Your task to perform on an android device: Go to privacy settings Image 0: 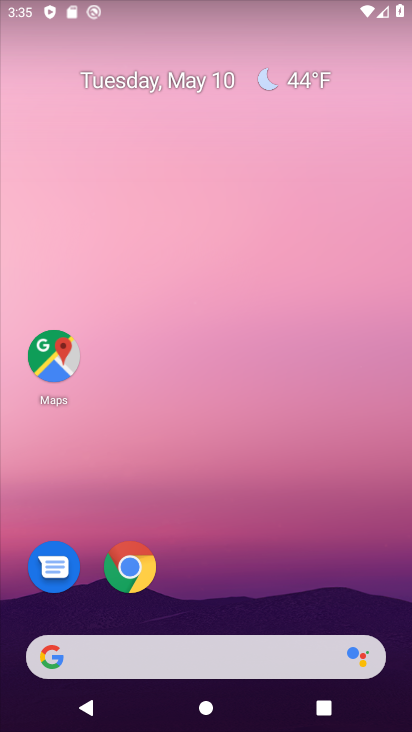
Step 0: drag from (248, 601) to (255, 16)
Your task to perform on an android device: Go to privacy settings Image 1: 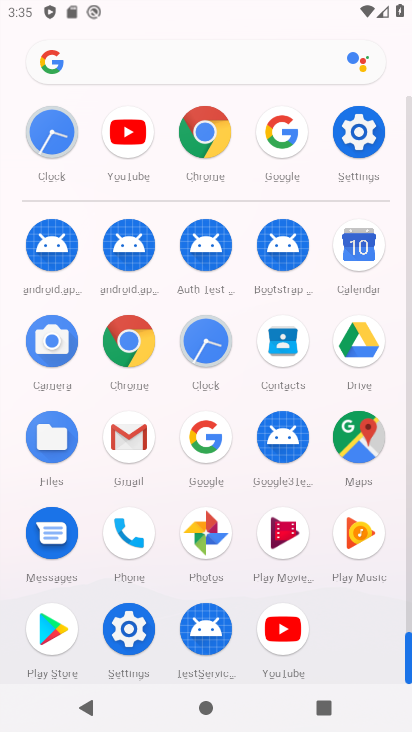
Step 1: click (127, 631)
Your task to perform on an android device: Go to privacy settings Image 2: 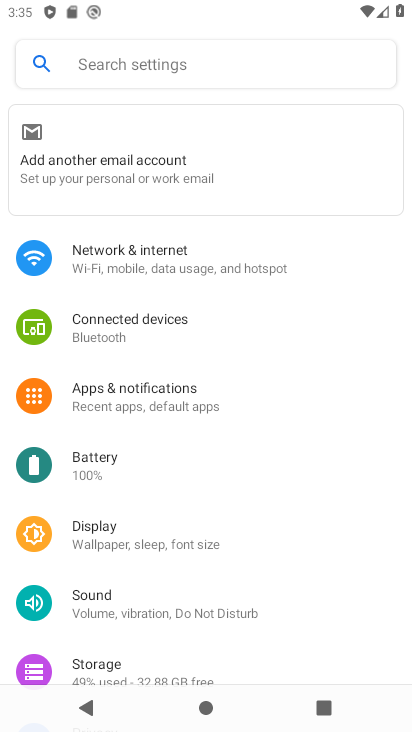
Step 2: drag from (132, 491) to (182, 340)
Your task to perform on an android device: Go to privacy settings Image 3: 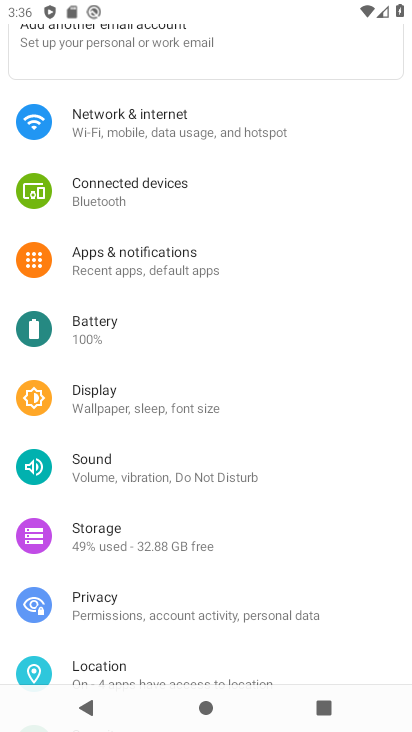
Step 3: click (91, 595)
Your task to perform on an android device: Go to privacy settings Image 4: 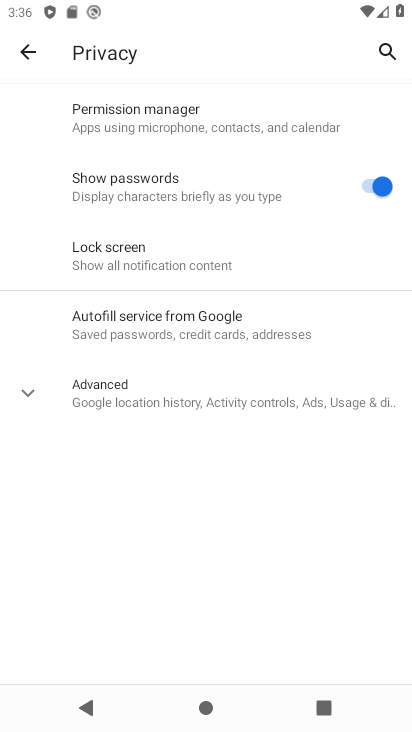
Step 4: task complete